Your task to perform on an android device: refresh tabs in the chrome app Image 0: 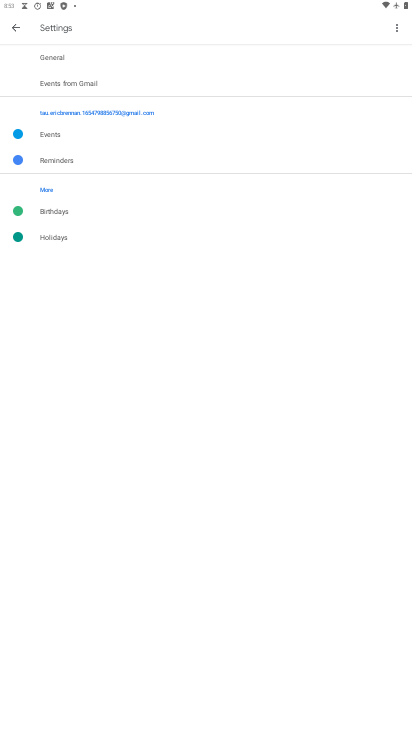
Step 0: drag from (163, 552) to (214, 143)
Your task to perform on an android device: refresh tabs in the chrome app Image 1: 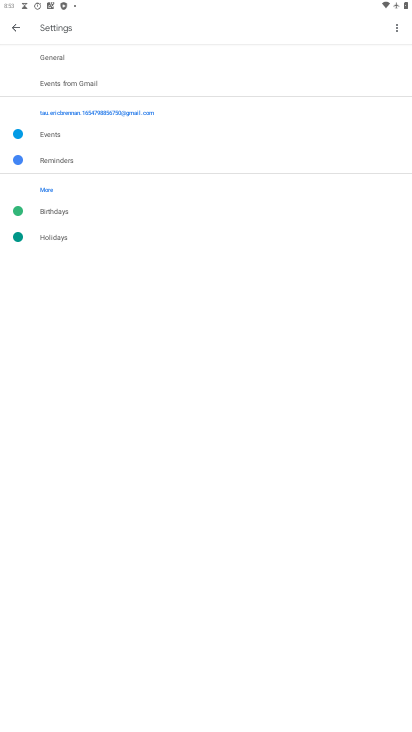
Step 1: drag from (146, 623) to (208, 228)
Your task to perform on an android device: refresh tabs in the chrome app Image 2: 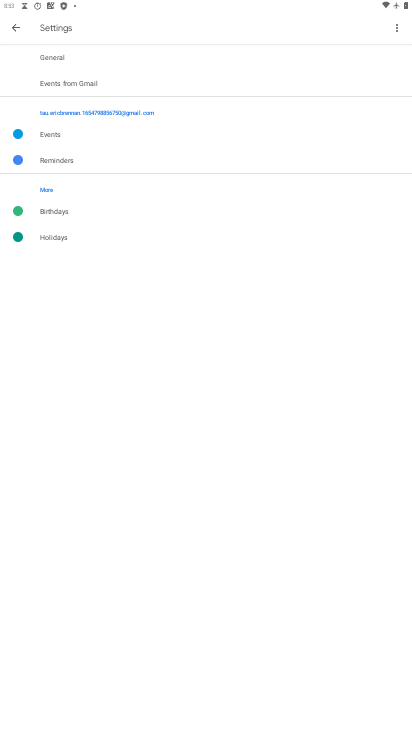
Step 2: press home button
Your task to perform on an android device: refresh tabs in the chrome app Image 3: 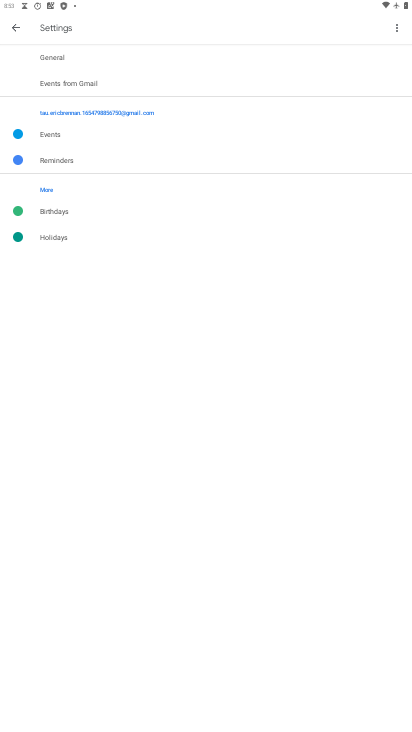
Step 3: press home button
Your task to perform on an android device: refresh tabs in the chrome app Image 4: 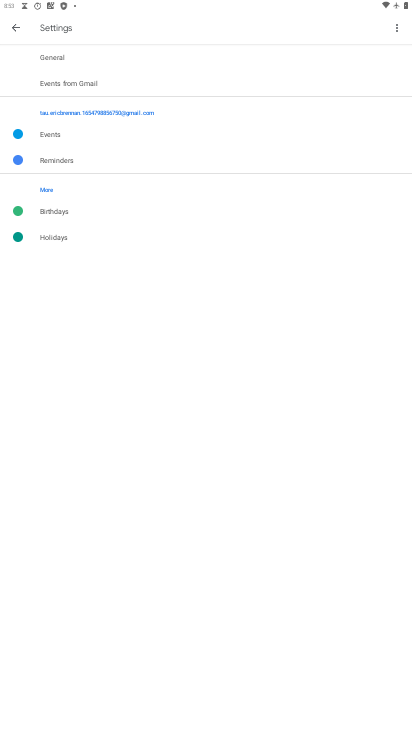
Step 4: click (225, 21)
Your task to perform on an android device: refresh tabs in the chrome app Image 5: 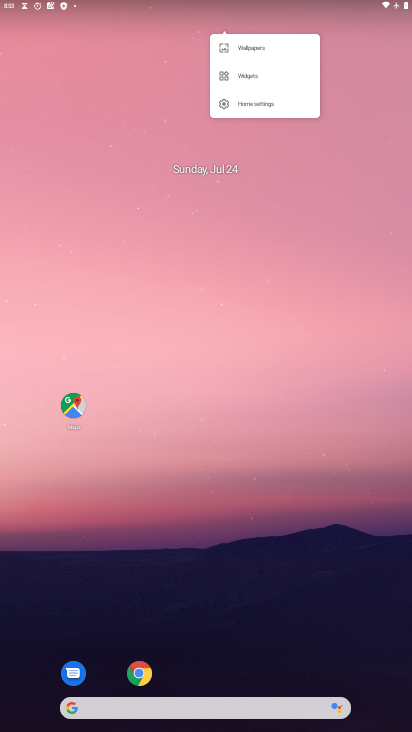
Step 5: drag from (215, 683) to (286, 0)
Your task to perform on an android device: refresh tabs in the chrome app Image 6: 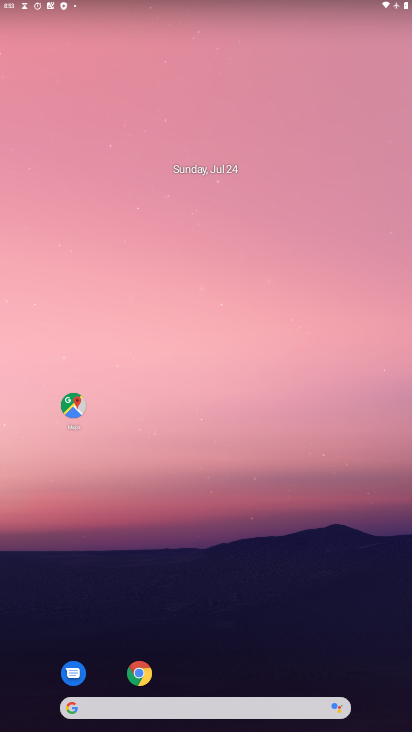
Step 6: drag from (169, 646) to (209, 375)
Your task to perform on an android device: refresh tabs in the chrome app Image 7: 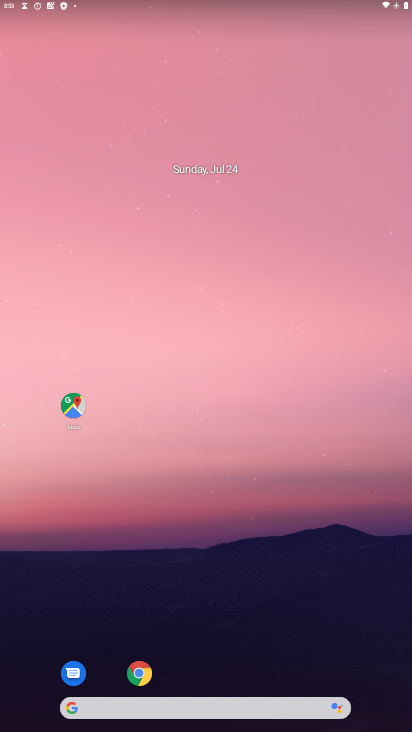
Step 7: drag from (205, 674) to (279, 25)
Your task to perform on an android device: refresh tabs in the chrome app Image 8: 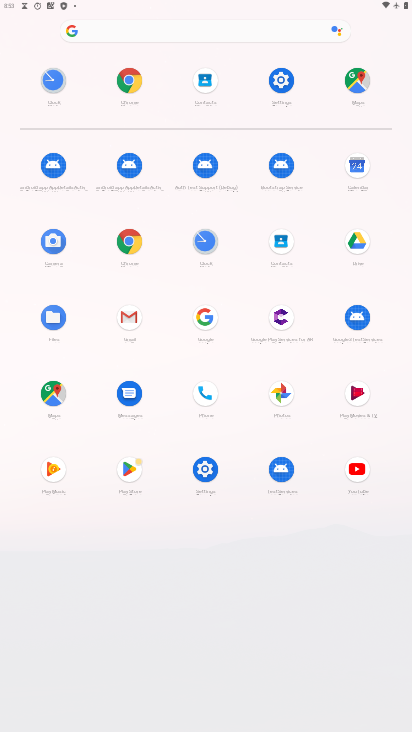
Step 8: click (129, 234)
Your task to perform on an android device: refresh tabs in the chrome app Image 9: 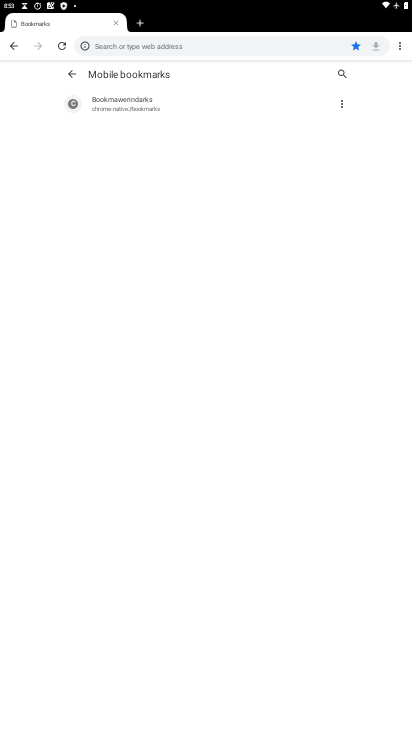
Step 9: drag from (182, 522) to (227, 324)
Your task to perform on an android device: refresh tabs in the chrome app Image 10: 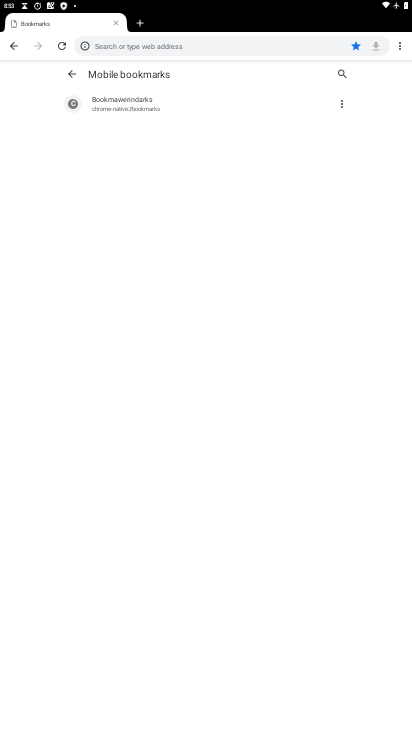
Step 10: click (67, 45)
Your task to perform on an android device: refresh tabs in the chrome app Image 11: 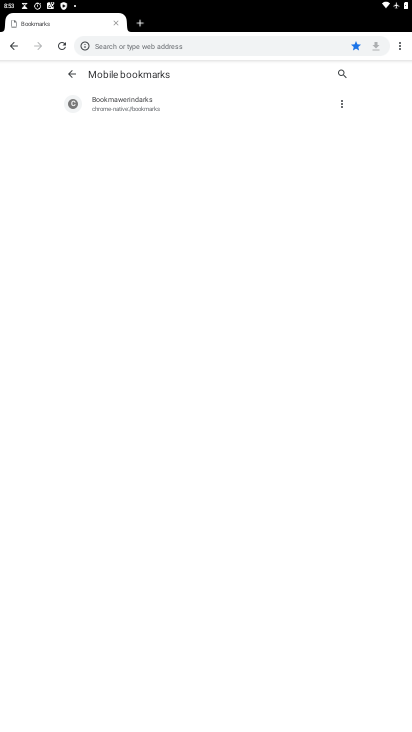
Step 11: task complete